Your task to perform on an android device: empty trash in google photos Image 0: 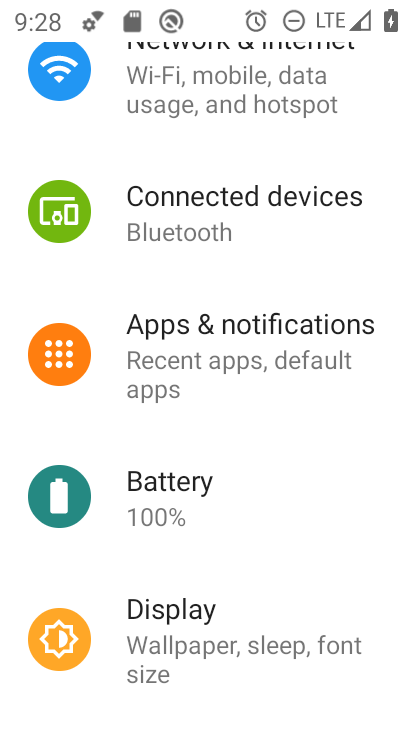
Step 0: press home button
Your task to perform on an android device: empty trash in google photos Image 1: 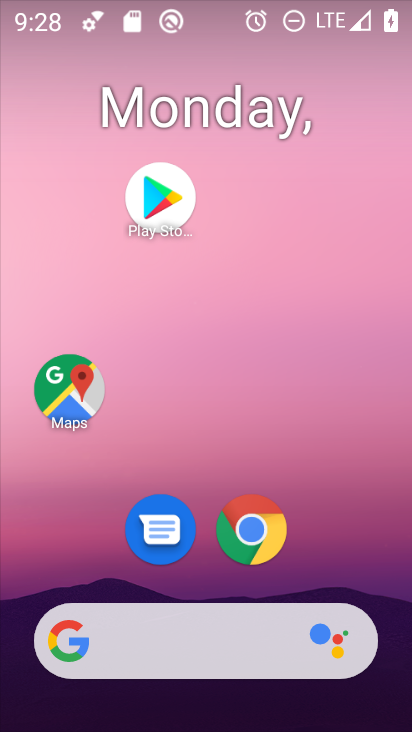
Step 1: drag from (242, 425) to (163, 73)
Your task to perform on an android device: empty trash in google photos Image 2: 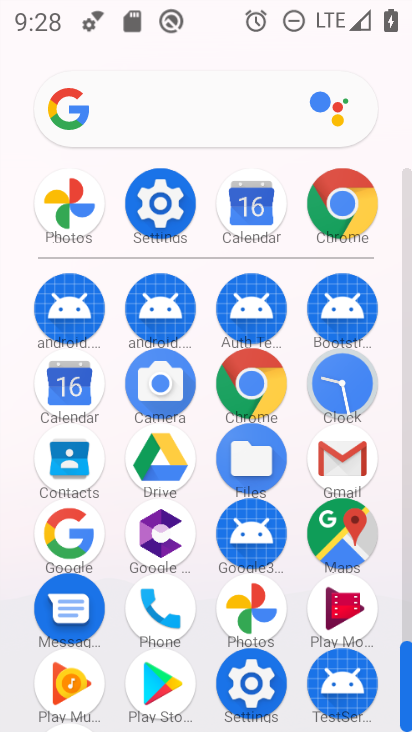
Step 2: click (59, 207)
Your task to perform on an android device: empty trash in google photos Image 3: 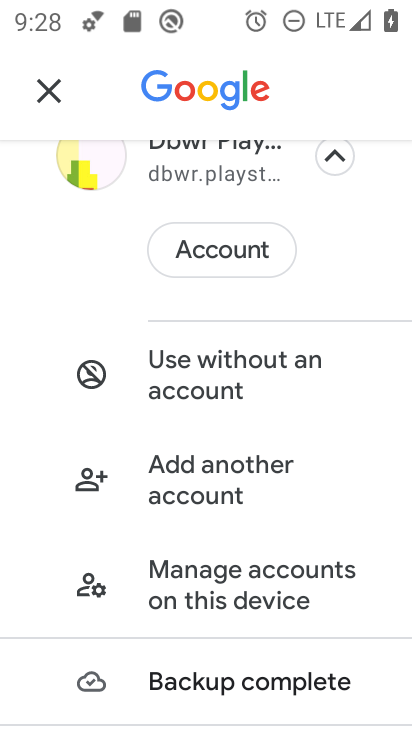
Step 3: click (44, 85)
Your task to perform on an android device: empty trash in google photos Image 4: 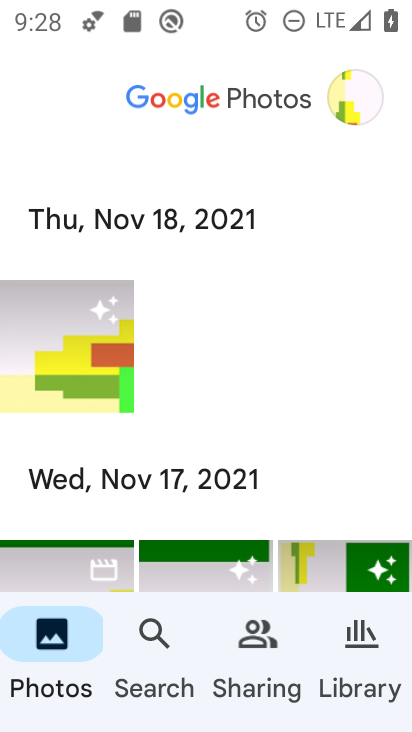
Step 4: click (358, 653)
Your task to perform on an android device: empty trash in google photos Image 5: 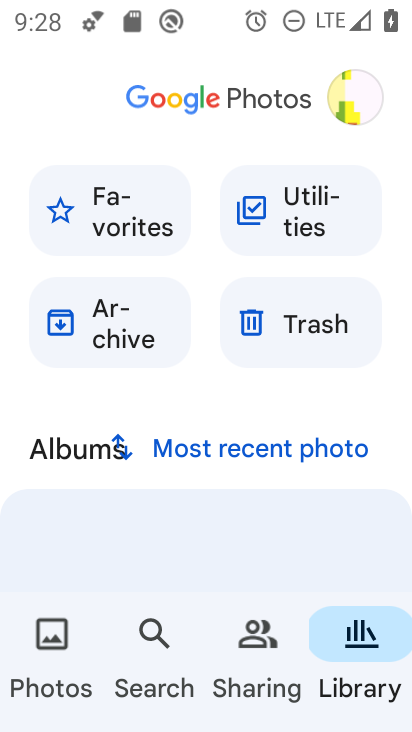
Step 5: click (271, 318)
Your task to perform on an android device: empty trash in google photos Image 6: 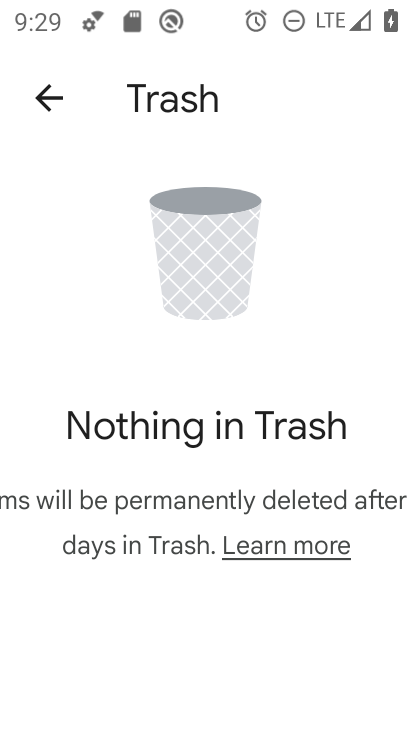
Step 6: task complete